Your task to perform on an android device: install app "WhatsApp Messenger" Image 0: 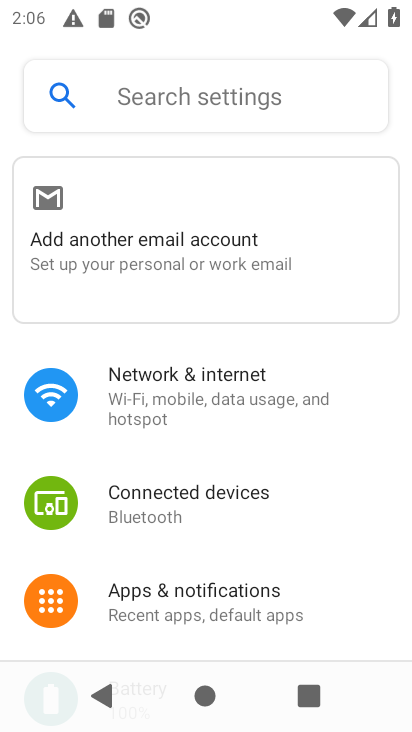
Step 0: press home button
Your task to perform on an android device: install app "WhatsApp Messenger" Image 1: 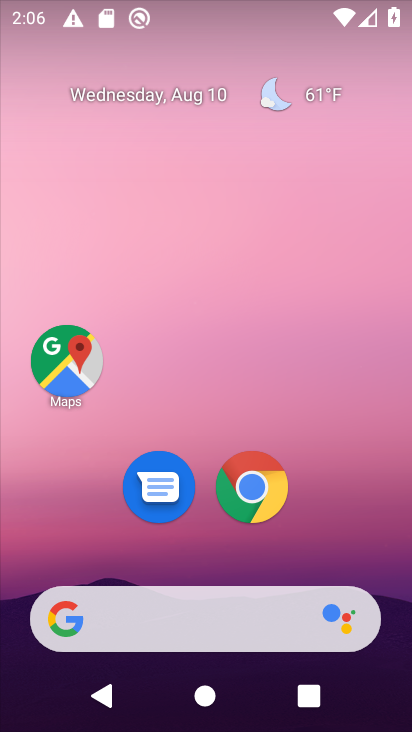
Step 1: drag from (158, 591) to (125, 254)
Your task to perform on an android device: install app "WhatsApp Messenger" Image 2: 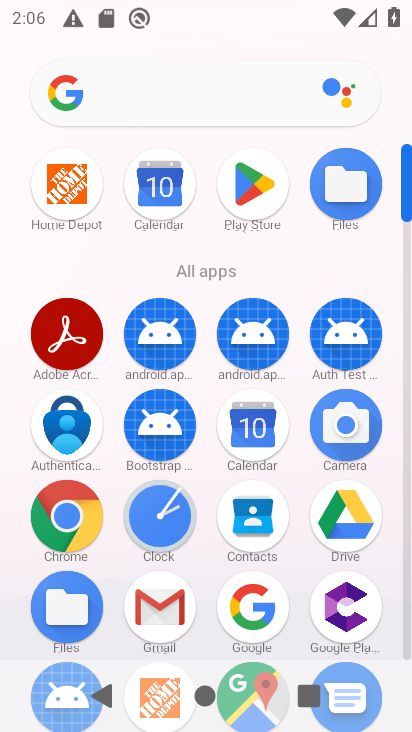
Step 2: click (250, 185)
Your task to perform on an android device: install app "WhatsApp Messenger" Image 3: 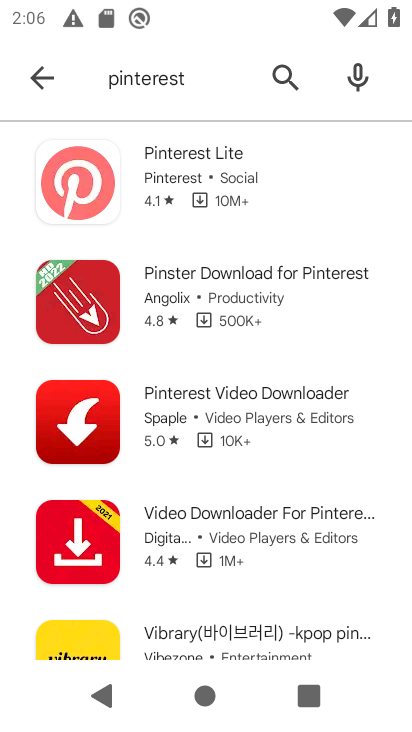
Step 3: click (290, 67)
Your task to perform on an android device: install app "WhatsApp Messenger" Image 4: 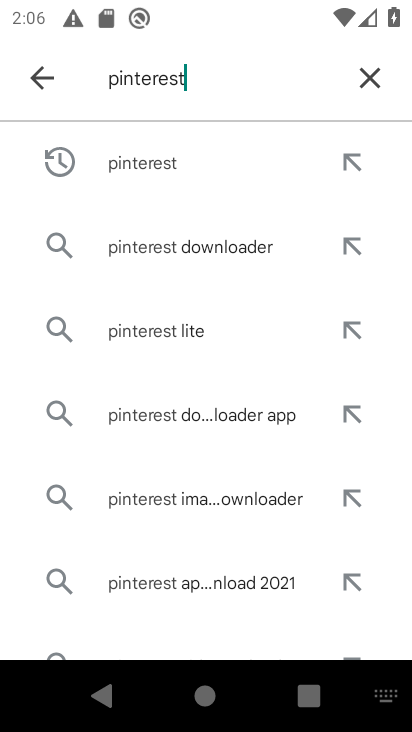
Step 4: click (361, 79)
Your task to perform on an android device: install app "WhatsApp Messenger" Image 5: 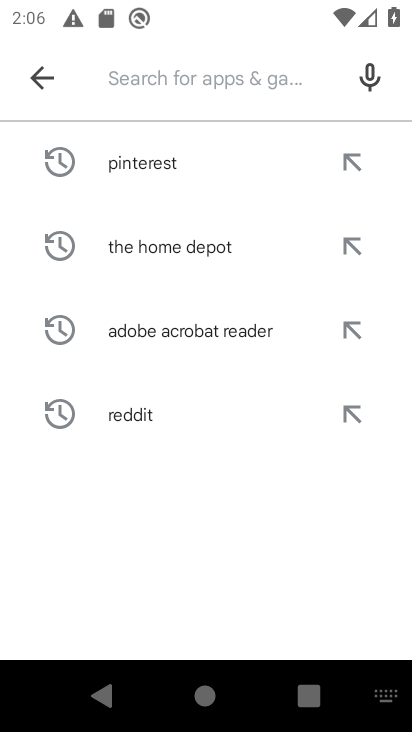
Step 5: type "Pinterest"
Your task to perform on an android device: install app "WhatsApp Messenger" Image 6: 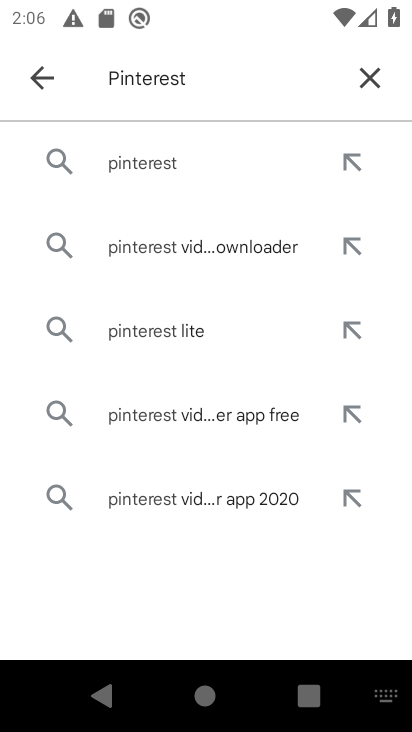
Step 6: click (367, 70)
Your task to perform on an android device: install app "WhatsApp Messenger" Image 7: 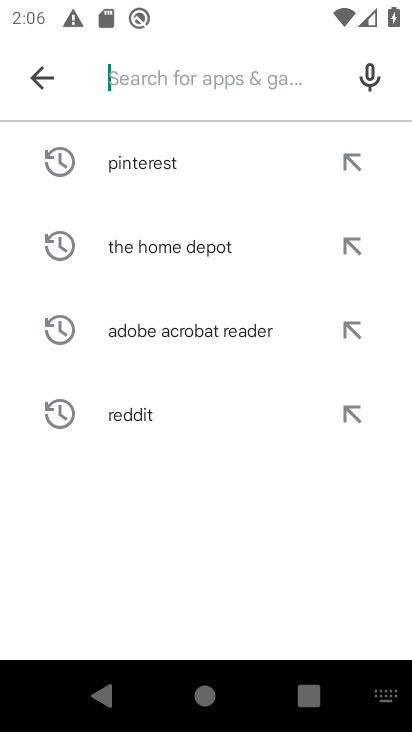
Step 7: type "WhatsApp Messenger"
Your task to perform on an android device: install app "WhatsApp Messenger" Image 8: 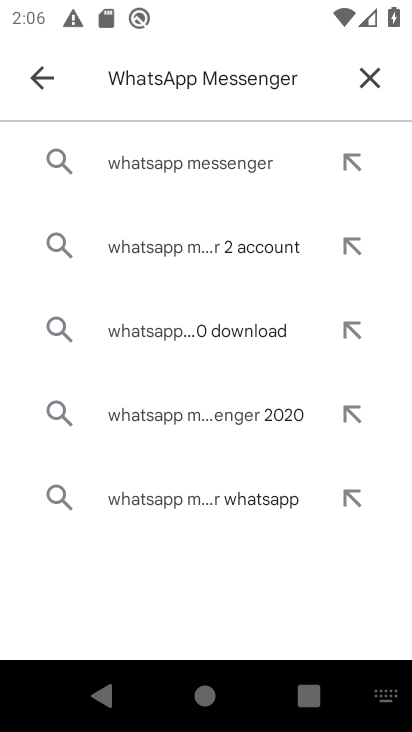
Step 8: click (156, 162)
Your task to perform on an android device: install app "WhatsApp Messenger" Image 9: 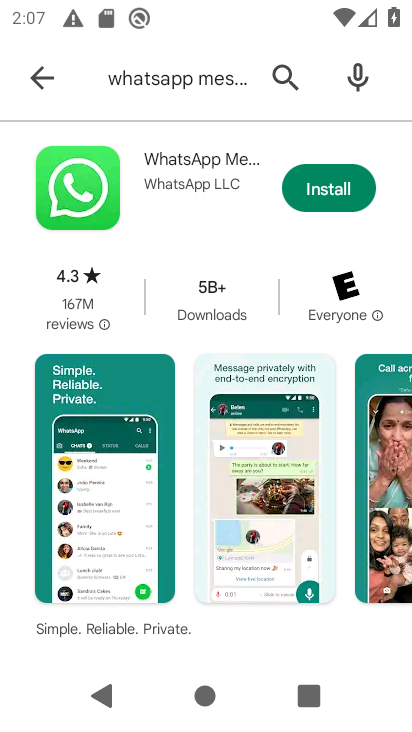
Step 9: click (329, 187)
Your task to perform on an android device: install app "WhatsApp Messenger" Image 10: 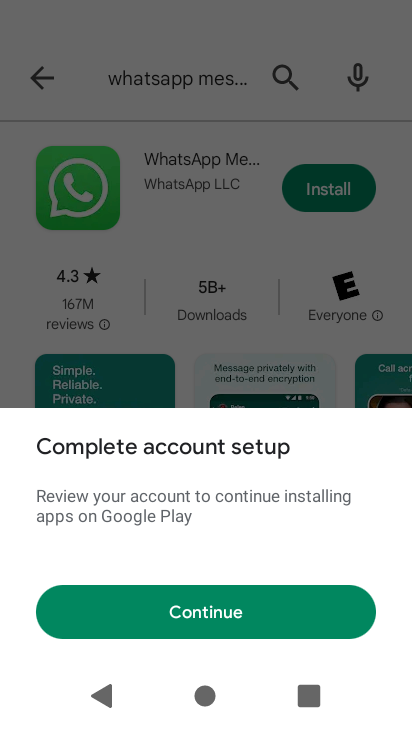
Step 10: click (161, 616)
Your task to perform on an android device: install app "WhatsApp Messenger" Image 11: 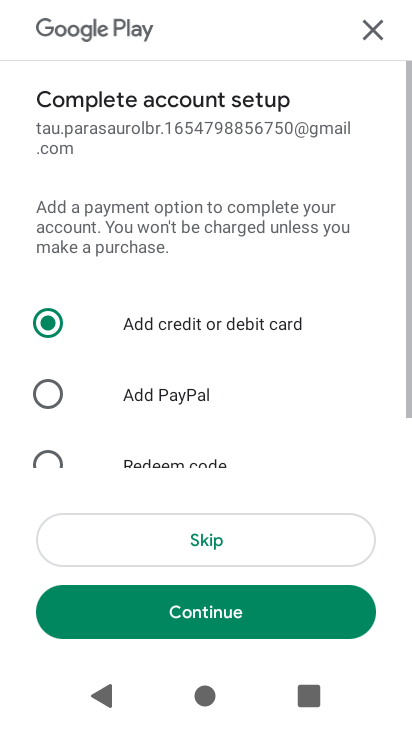
Step 11: click (177, 545)
Your task to perform on an android device: install app "WhatsApp Messenger" Image 12: 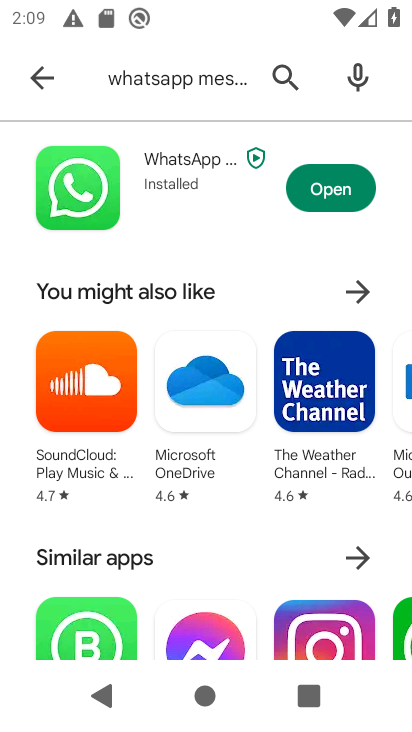
Step 12: click (347, 190)
Your task to perform on an android device: install app "WhatsApp Messenger" Image 13: 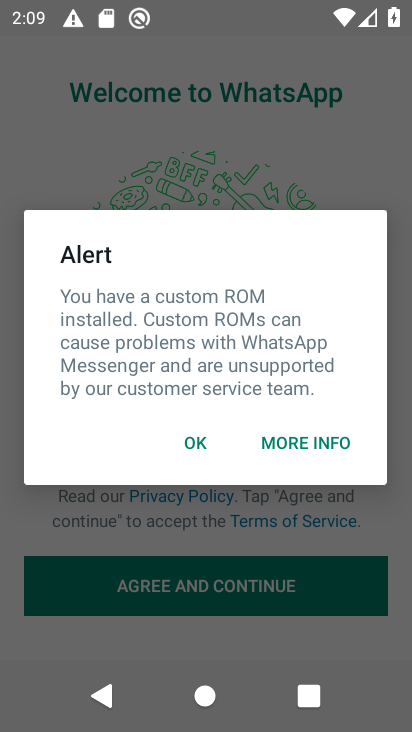
Step 13: task complete